Your task to perform on an android device: install app "Fetch Rewards" Image 0: 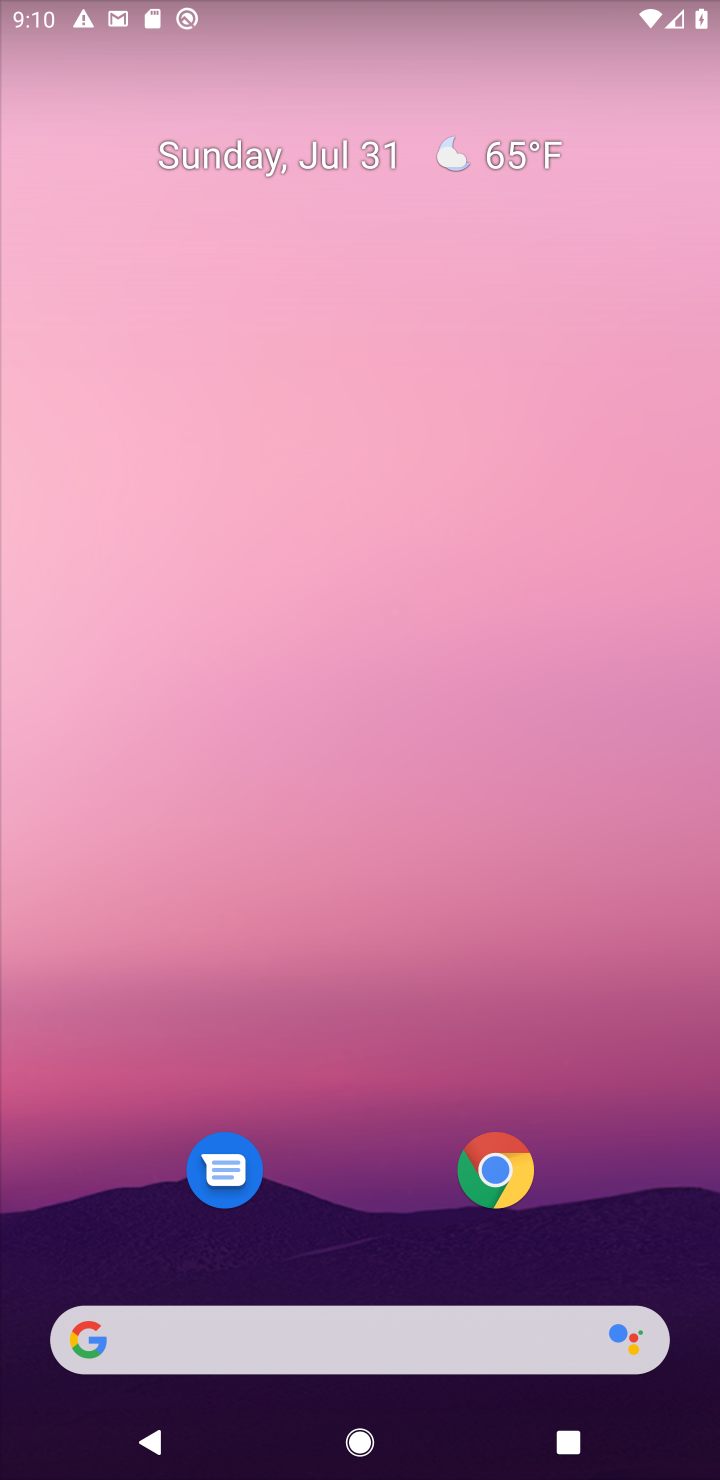
Step 0: drag from (376, 1326) to (543, 1446)
Your task to perform on an android device: install app "Fetch Rewards" Image 1: 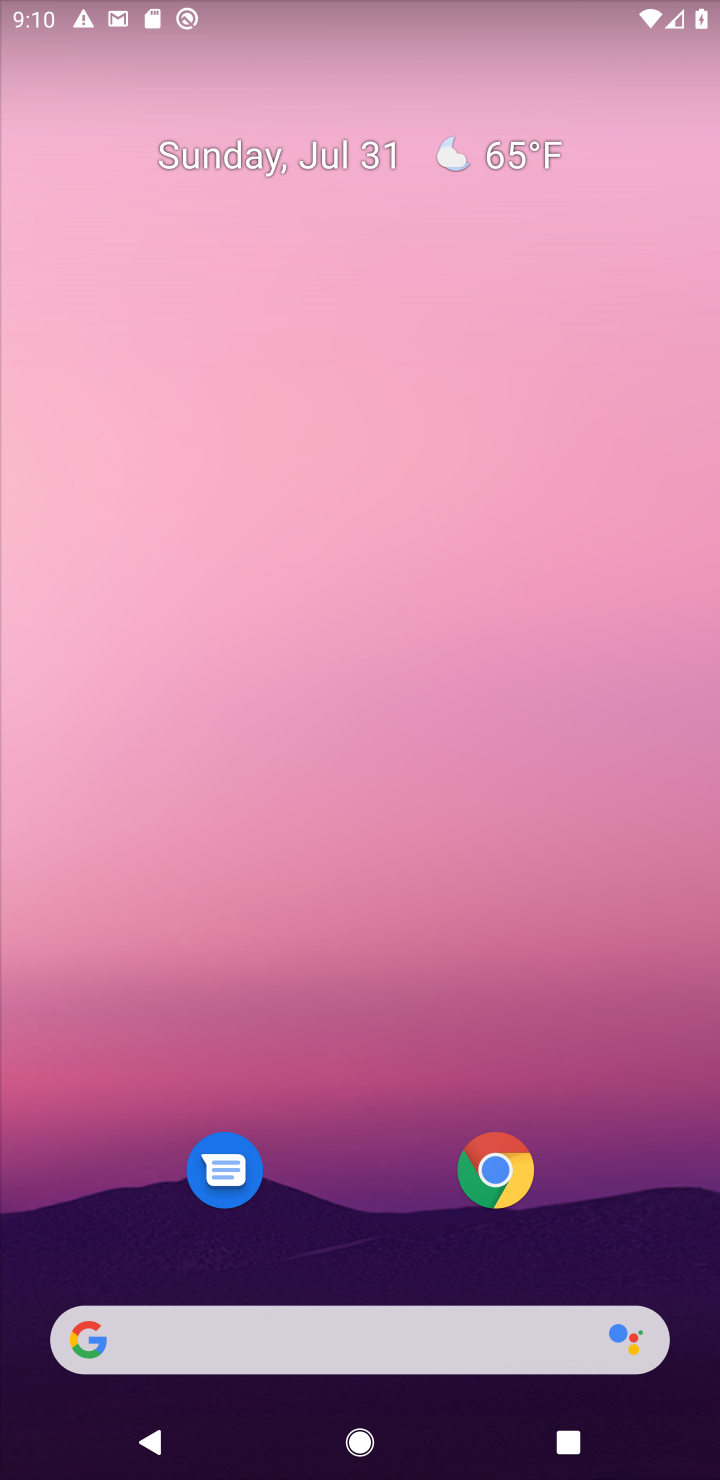
Step 1: drag from (388, 1251) to (166, 6)
Your task to perform on an android device: install app "Fetch Rewards" Image 2: 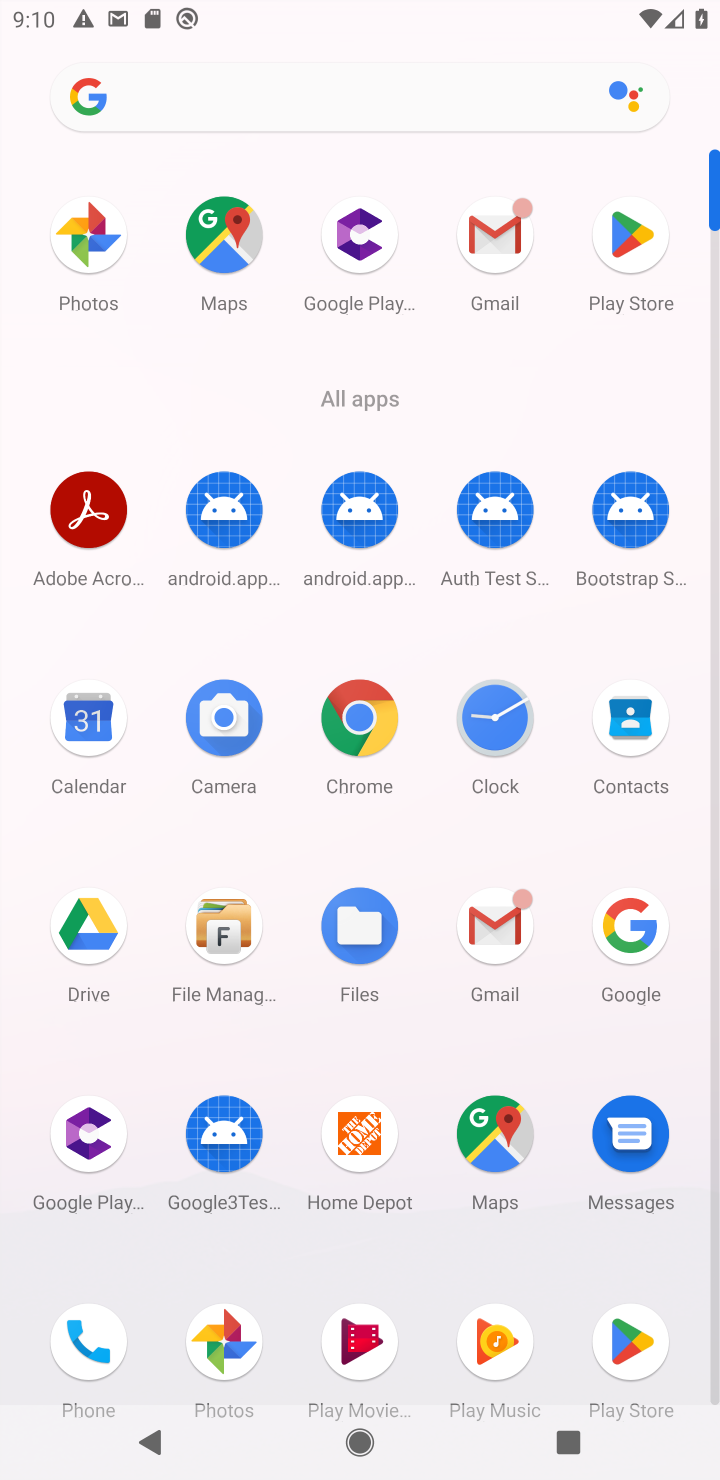
Step 2: click (650, 1364)
Your task to perform on an android device: install app "Fetch Rewards" Image 3: 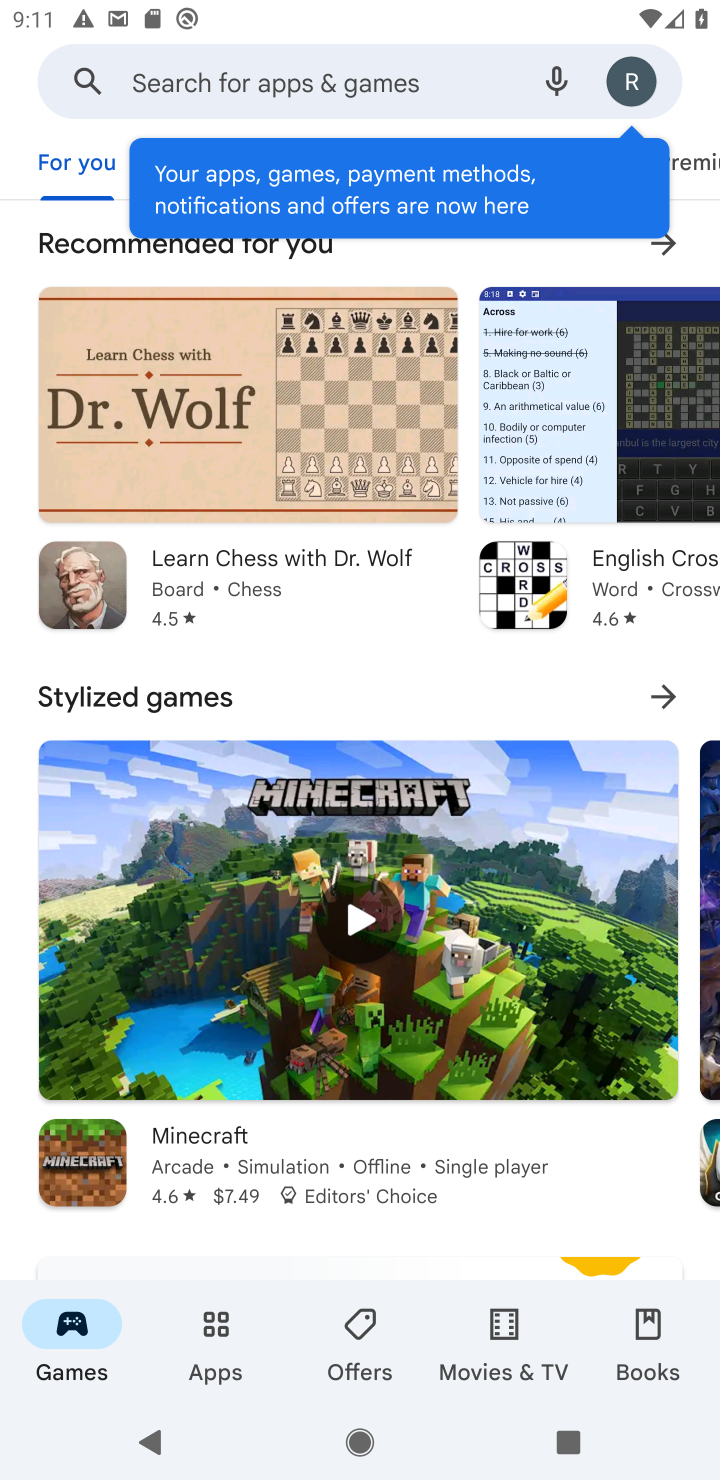
Step 3: click (280, 115)
Your task to perform on an android device: install app "Fetch Rewards" Image 4: 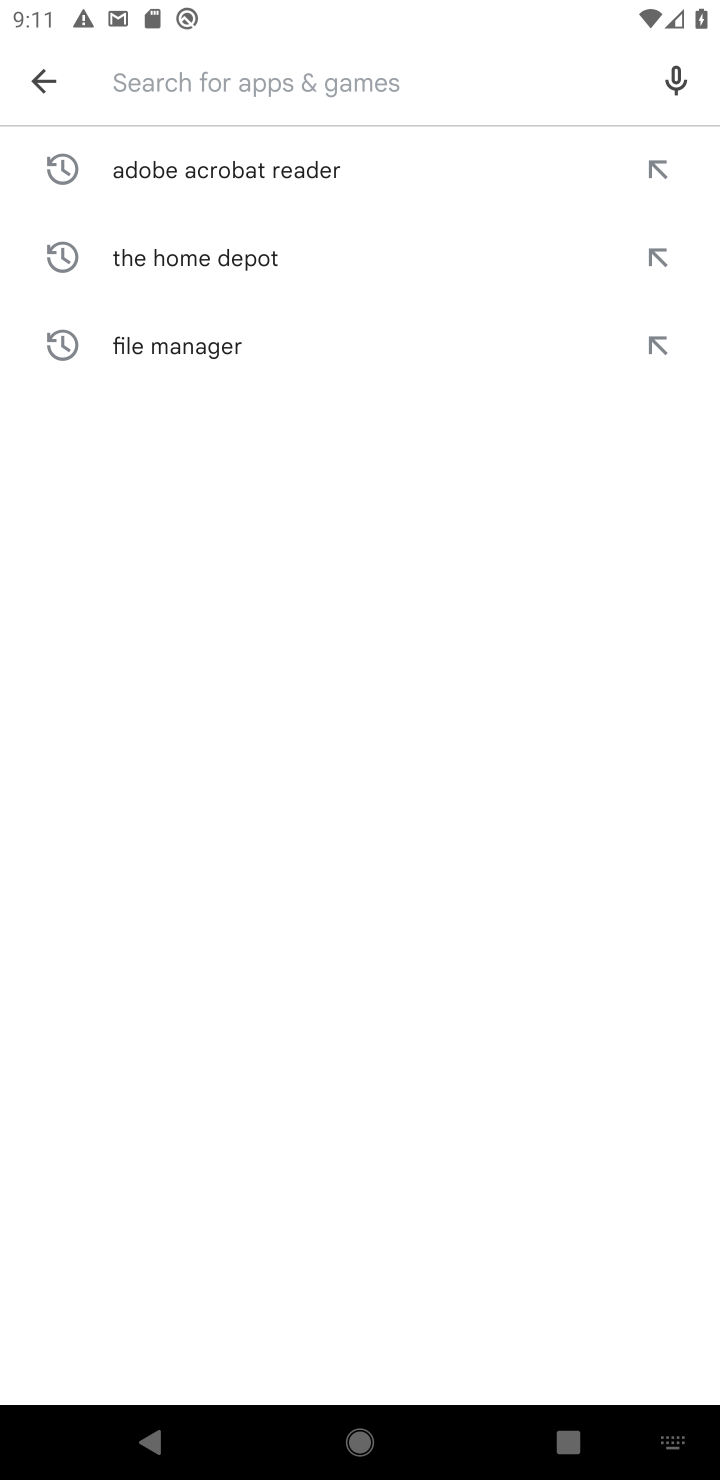
Step 4: type "Fetch Rewards"
Your task to perform on an android device: install app "Fetch Rewards" Image 5: 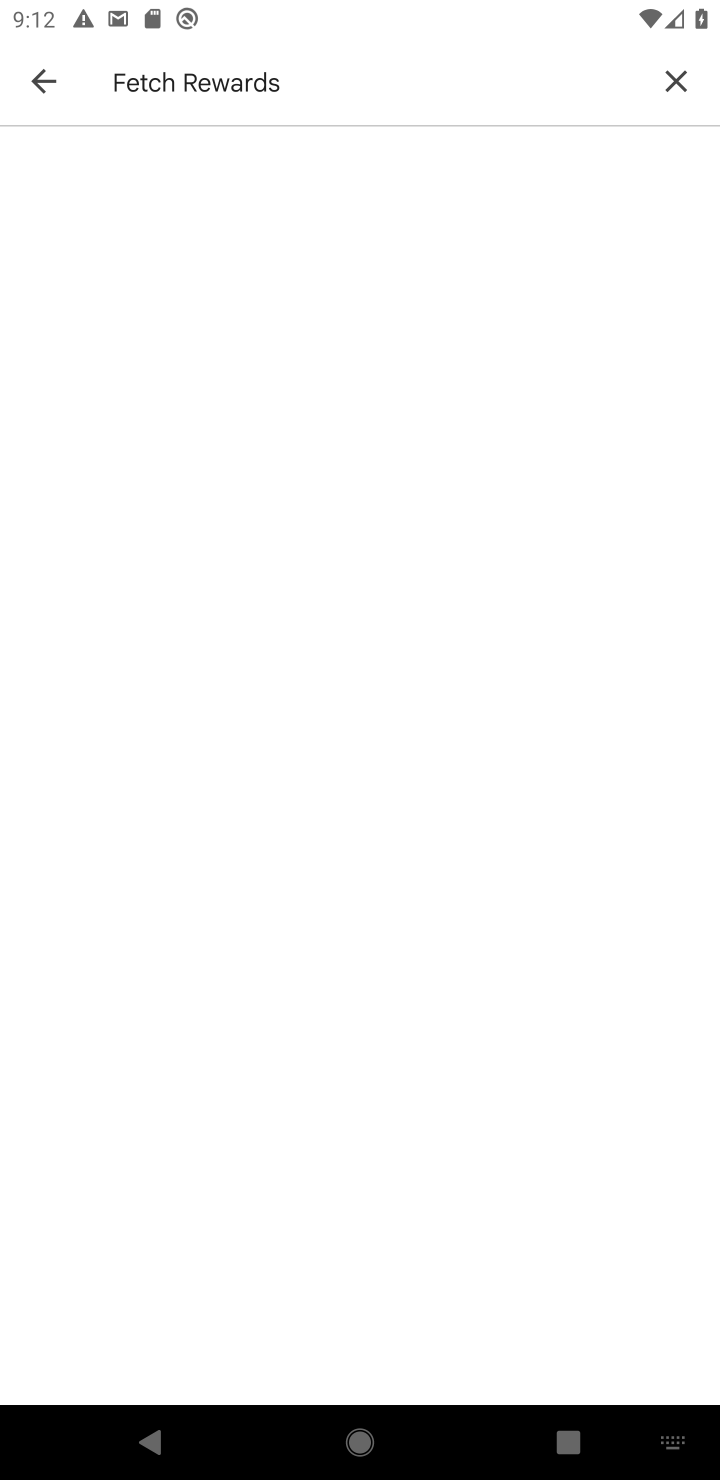
Step 5: task complete